Your task to perform on an android device: Open accessibility settings Image 0: 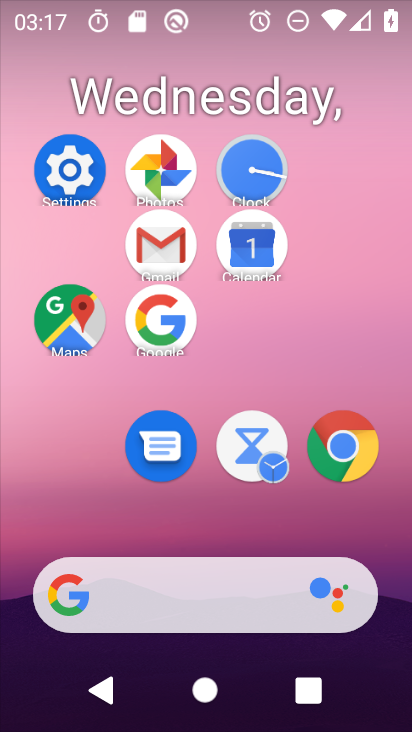
Step 0: click (65, 185)
Your task to perform on an android device: Open accessibility settings Image 1: 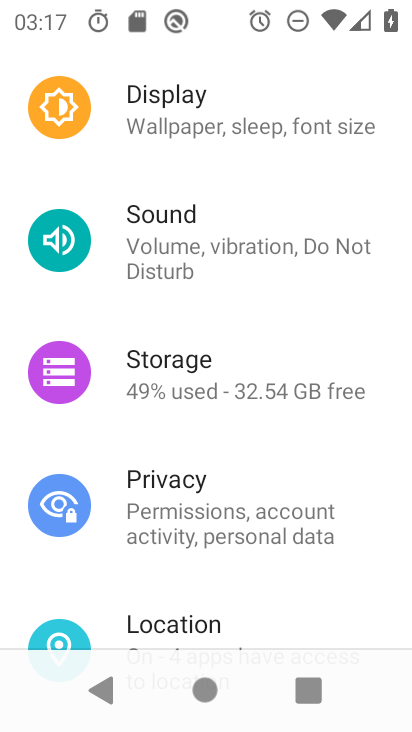
Step 1: drag from (259, 607) to (257, 214)
Your task to perform on an android device: Open accessibility settings Image 2: 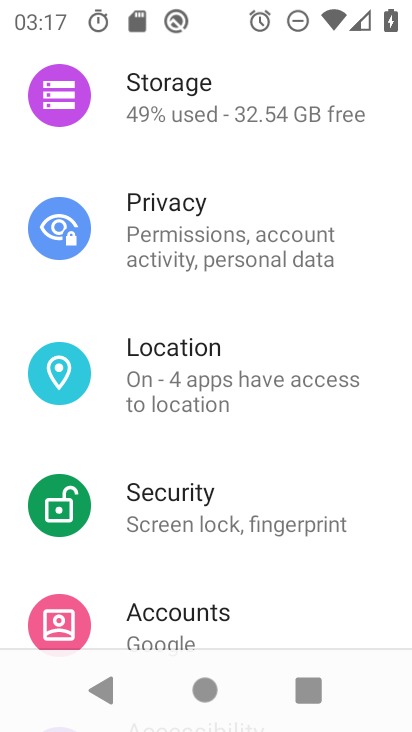
Step 2: drag from (281, 575) to (268, 117)
Your task to perform on an android device: Open accessibility settings Image 3: 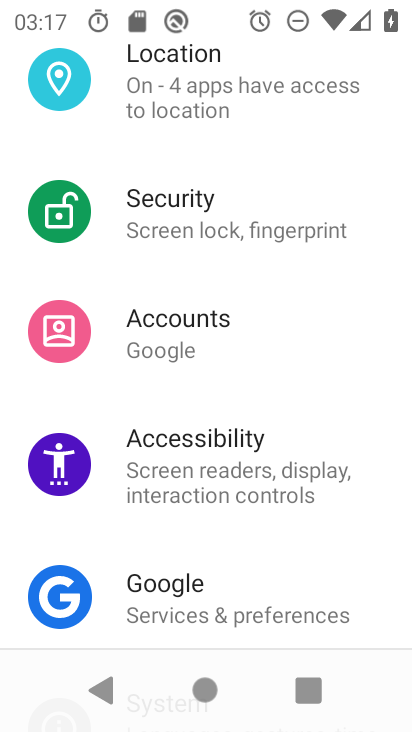
Step 3: click (252, 461)
Your task to perform on an android device: Open accessibility settings Image 4: 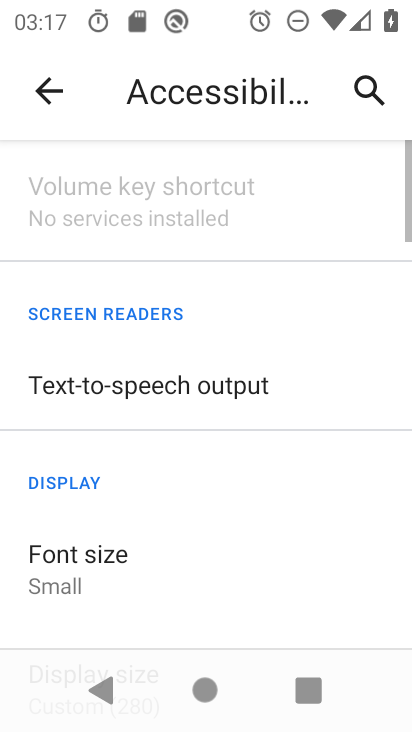
Step 4: task complete